Your task to perform on an android device: turn on wifi Image 0: 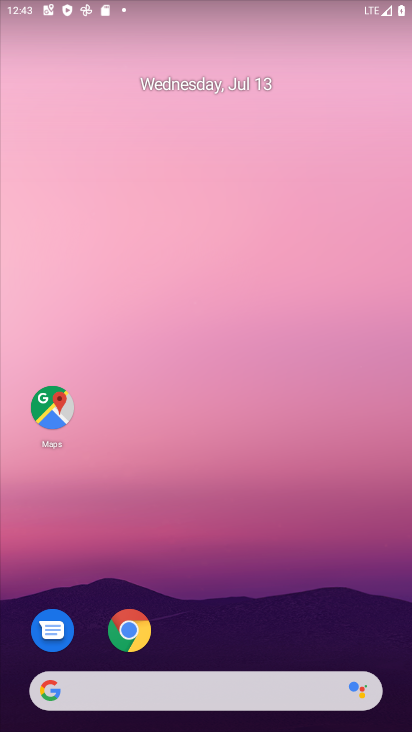
Step 0: drag from (189, 4) to (182, 542)
Your task to perform on an android device: turn on wifi Image 1: 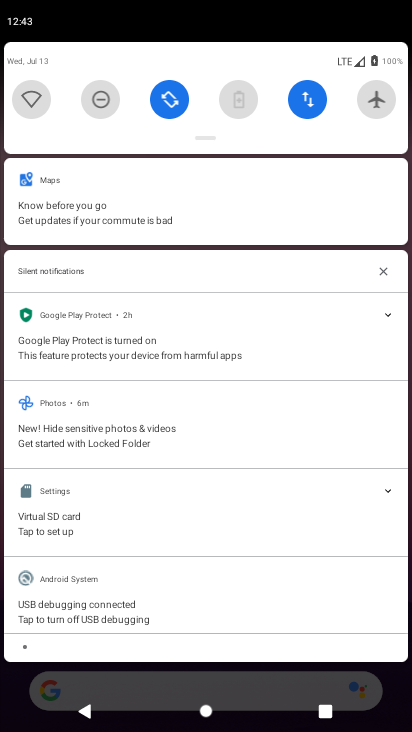
Step 1: click (27, 101)
Your task to perform on an android device: turn on wifi Image 2: 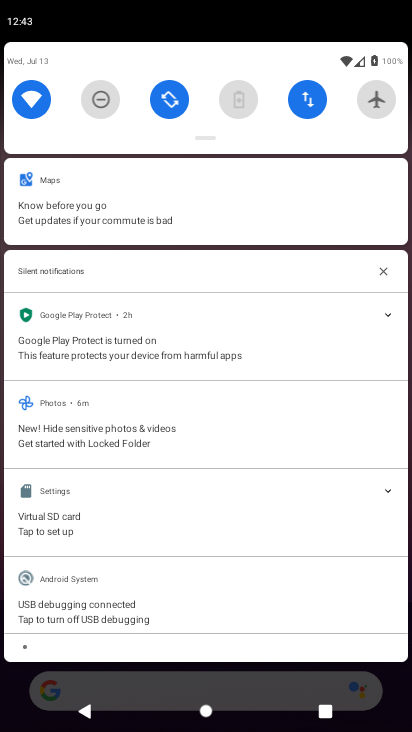
Step 2: task complete